Your task to perform on an android device: show emergency info Image 0: 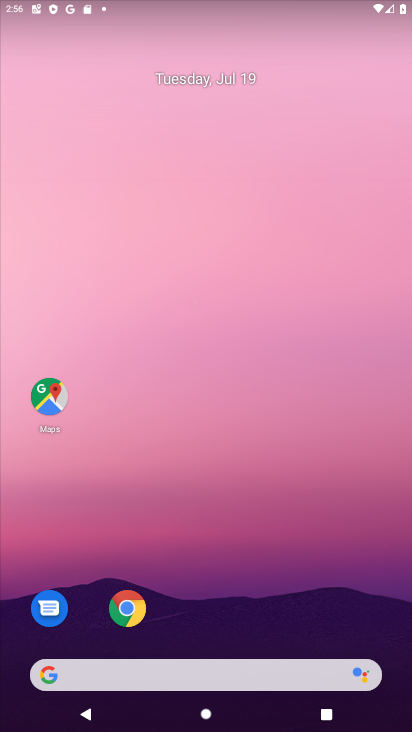
Step 0: drag from (247, 635) to (269, 200)
Your task to perform on an android device: show emergency info Image 1: 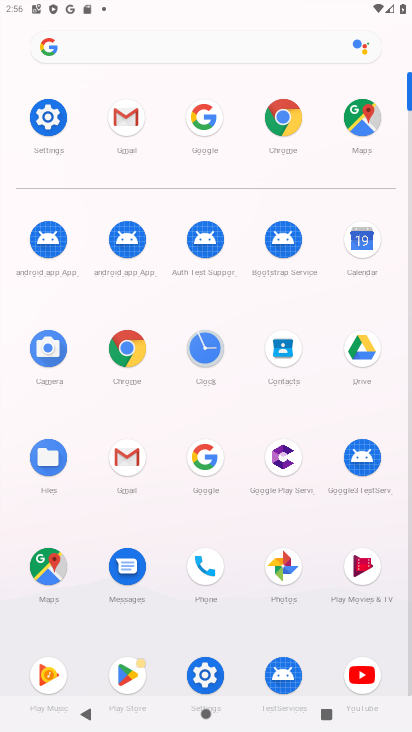
Step 1: click (43, 116)
Your task to perform on an android device: show emergency info Image 2: 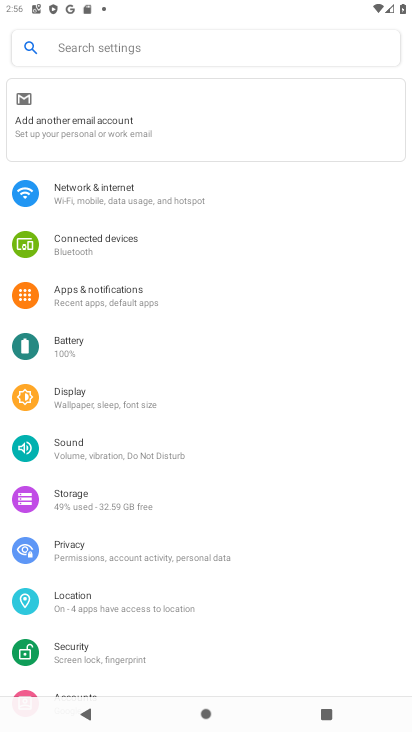
Step 2: drag from (151, 642) to (190, 169)
Your task to perform on an android device: show emergency info Image 3: 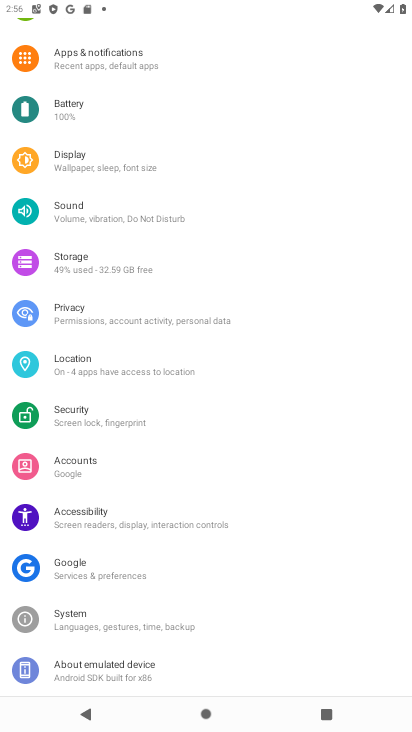
Step 3: click (79, 662)
Your task to perform on an android device: show emergency info Image 4: 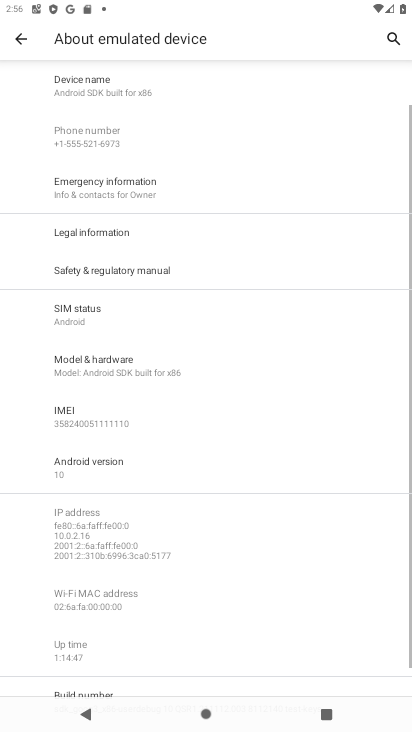
Step 4: click (125, 196)
Your task to perform on an android device: show emergency info Image 5: 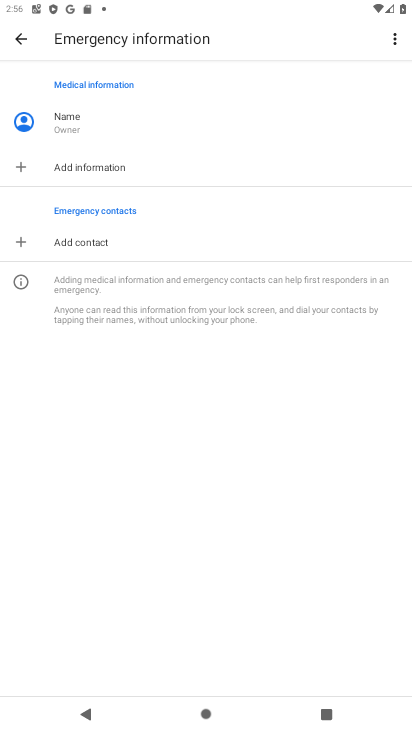
Step 5: task complete